Your task to perform on an android device: empty trash in the gmail app Image 0: 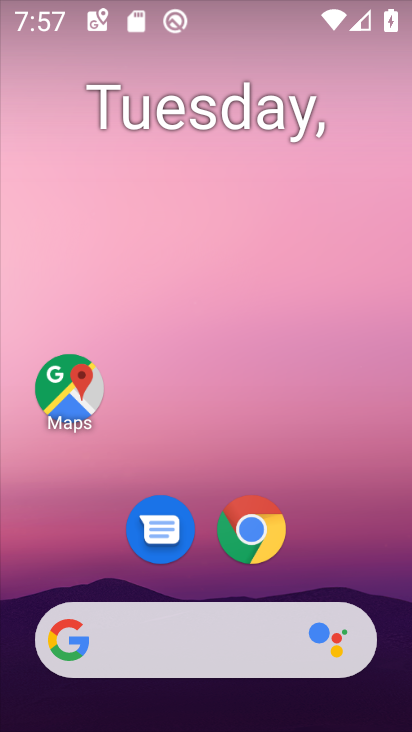
Step 0: drag from (242, 426) to (279, 41)
Your task to perform on an android device: empty trash in the gmail app Image 1: 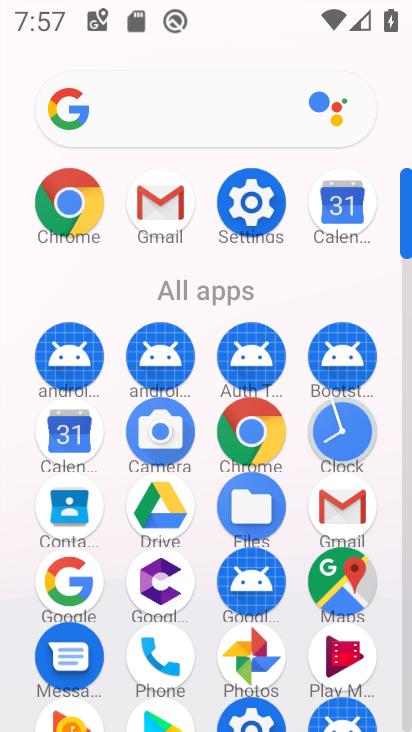
Step 1: click (156, 195)
Your task to perform on an android device: empty trash in the gmail app Image 2: 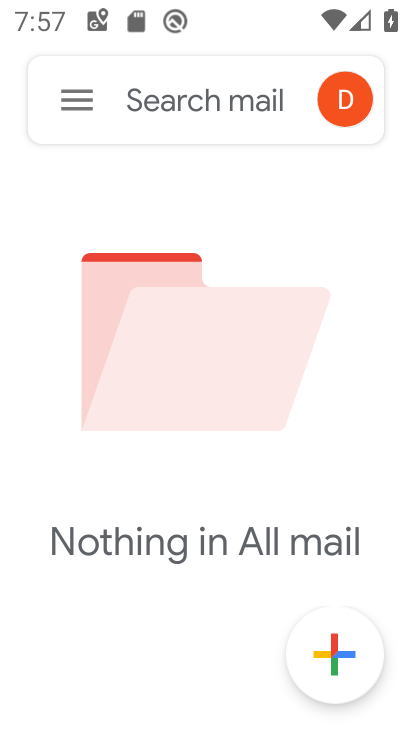
Step 2: click (74, 91)
Your task to perform on an android device: empty trash in the gmail app Image 3: 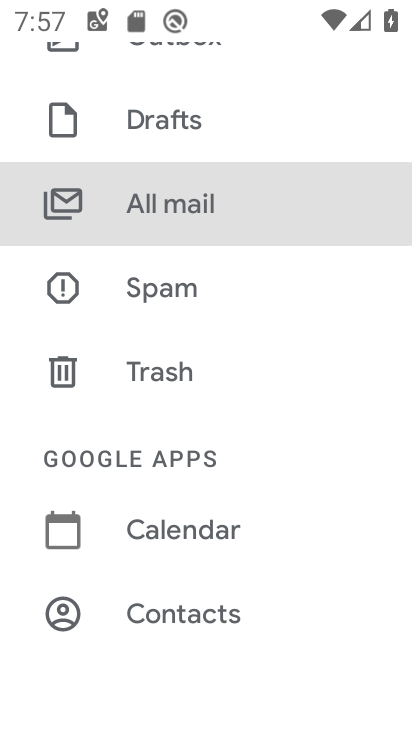
Step 3: click (161, 367)
Your task to perform on an android device: empty trash in the gmail app Image 4: 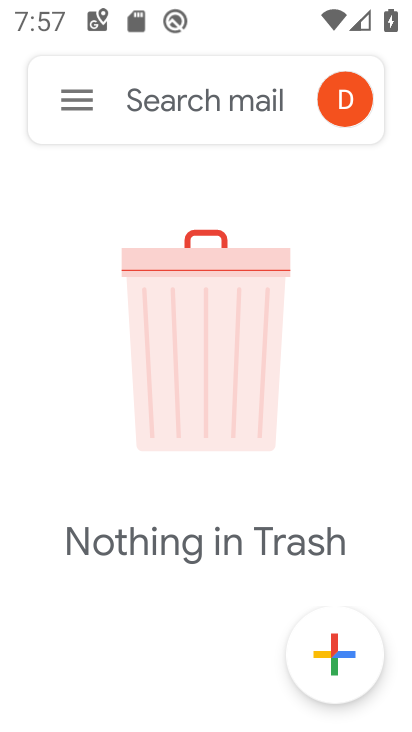
Step 4: task complete